Your task to perform on an android device: open wifi settings Image 0: 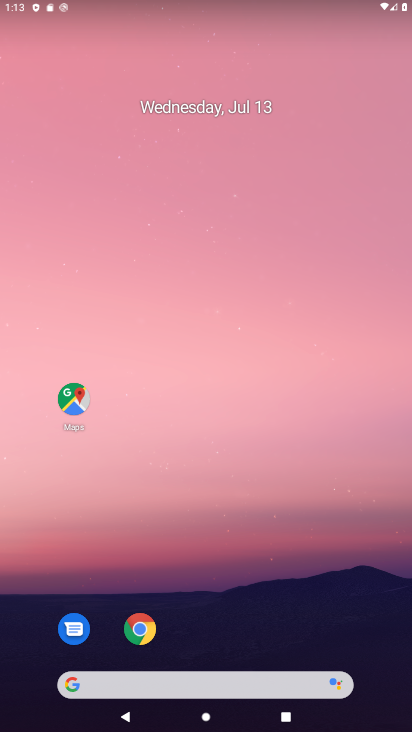
Step 0: drag from (236, 614) to (250, 134)
Your task to perform on an android device: open wifi settings Image 1: 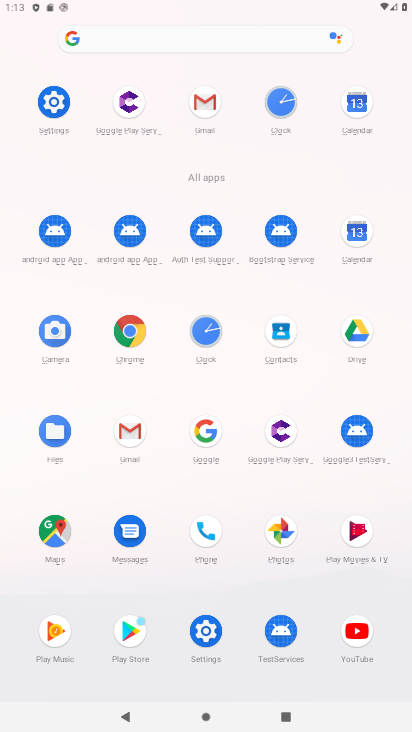
Step 1: click (213, 626)
Your task to perform on an android device: open wifi settings Image 2: 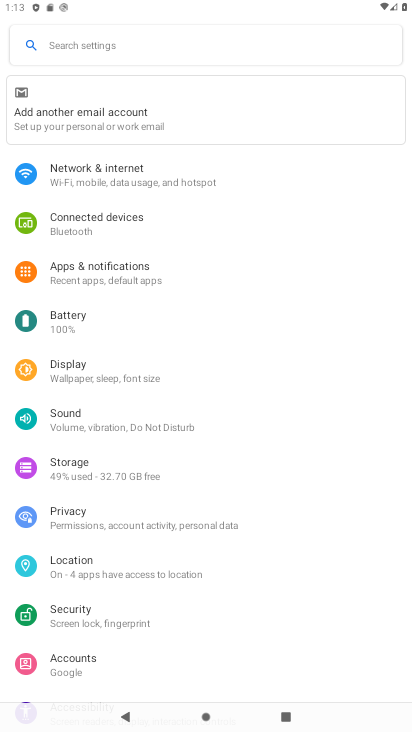
Step 2: click (214, 174)
Your task to perform on an android device: open wifi settings Image 3: 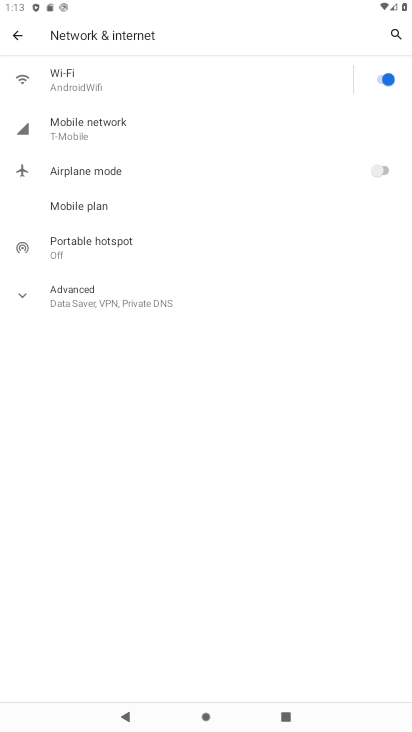
Step 3: click (133, 87)
Your task to perform on an android device: open wifi settings Image 4: 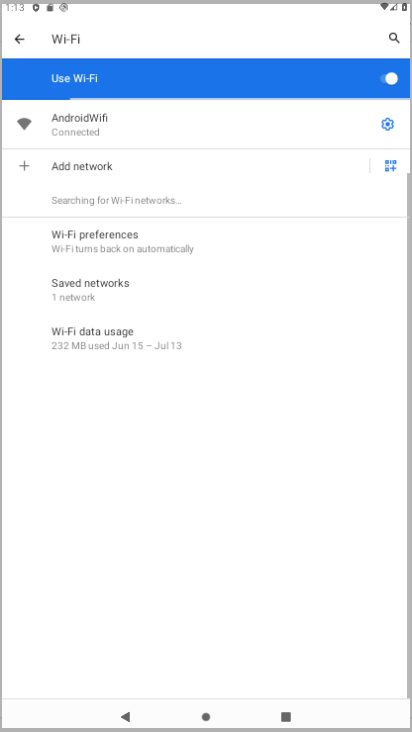
Step 4: task complete